Your task to perform on an android device: Go to Wikipedia Image 0: 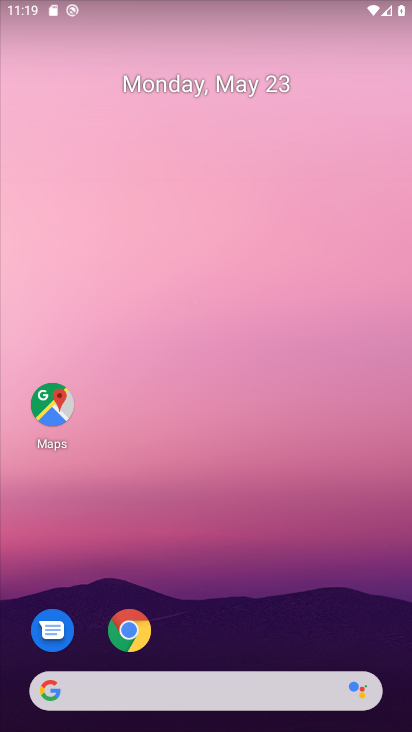
Step 0: click (130, 624)
Your task to perform on an android device: Go to Wikipedia Image 1: 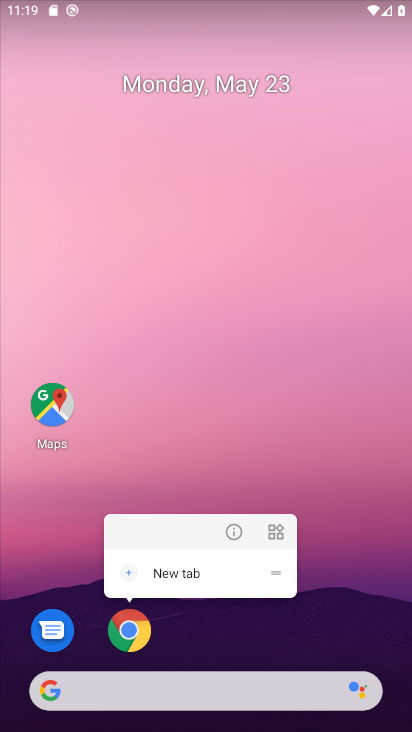
Step 1: click (233, 534)
Your task to perform on an android device: Go to Wikipedia Image 2: 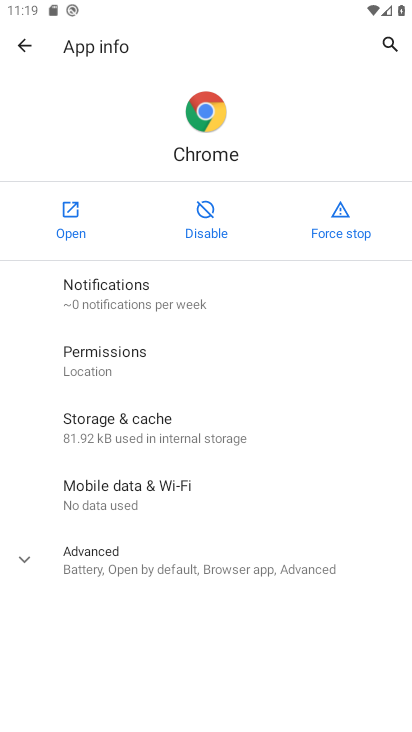
Step 2: click (62, 213)
Your task to perform on an android device: Go to Wikipedia Image 3: 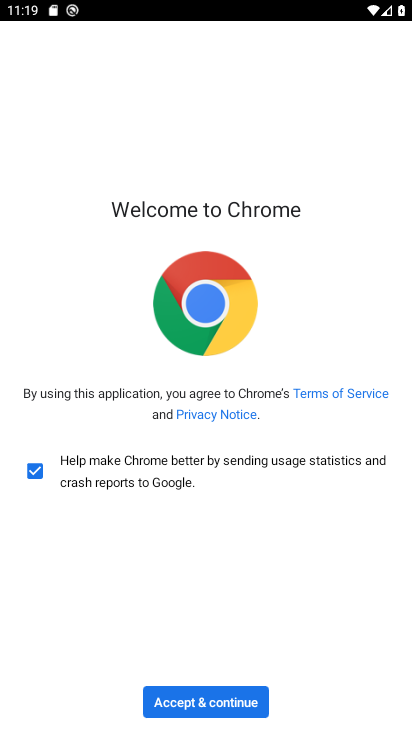
Step 3: click (217, 706)
Your task to perform on an android device: Go to Wikipedia Image 4: 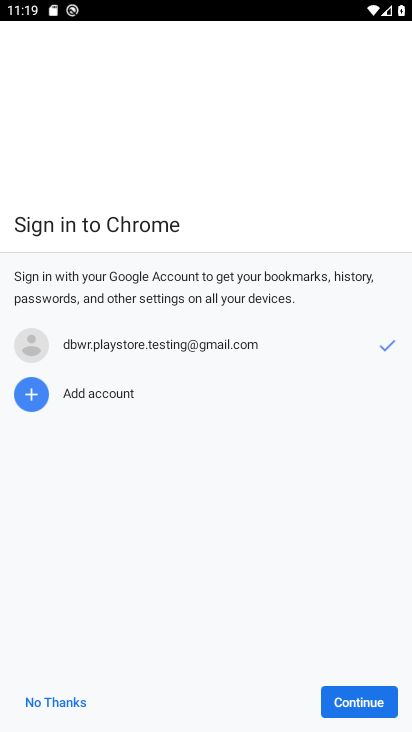
Step 4: click (354, 694)
Your task to perform on an android device: Go to Wikipedia Image 5: 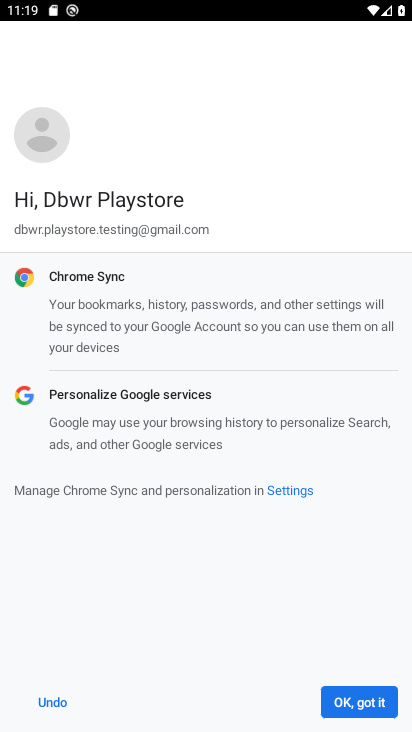
Step 5: click (360, 706)
Your task to perform on an android device: Go to Wikipedia Image 6: 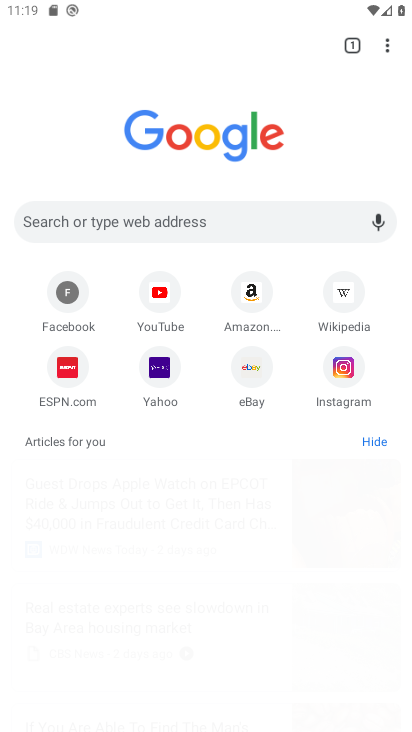
Step 6: drag from (135, 222) to (177, 222)
Your task to perform on an android device: Go to Wikipedia Image 7: 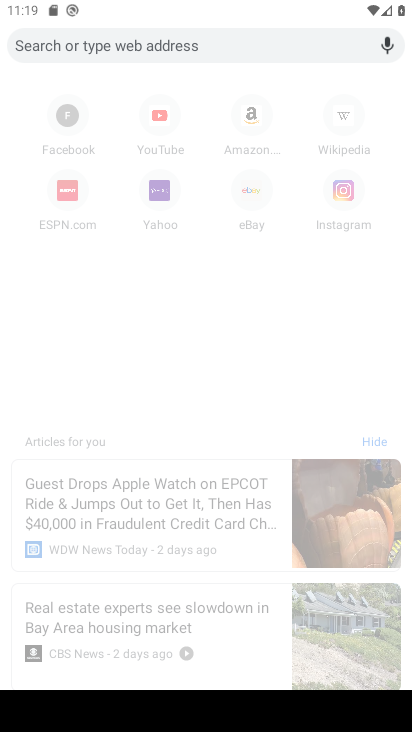
Step 7: type "Wikipedia"
Your task to perform on an android device: Go to Wikipedia Image 8: 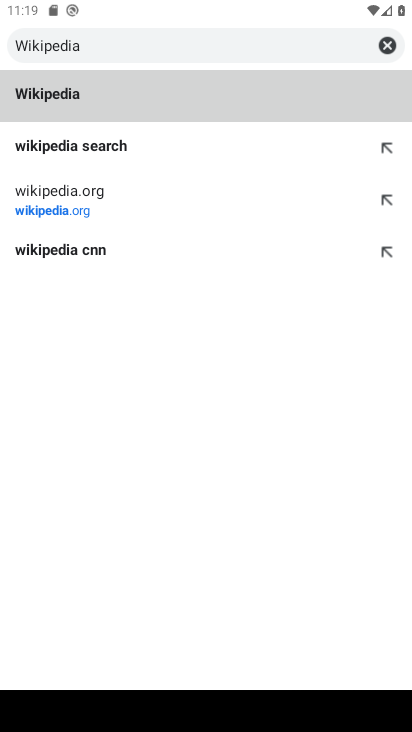
Step 8: click (145, 85)
Your task to perform on an android device: Go to Wikipedia Image 9: 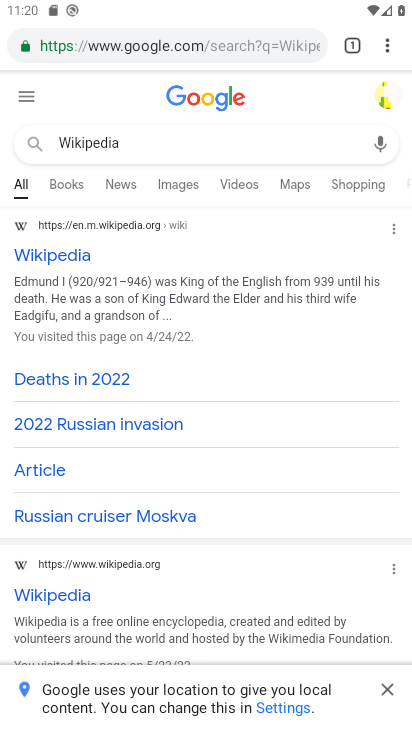
Step 9: task complete